Your task to perform on an android device: open app "Mercado Libre" (install if not already installed) Image 0: 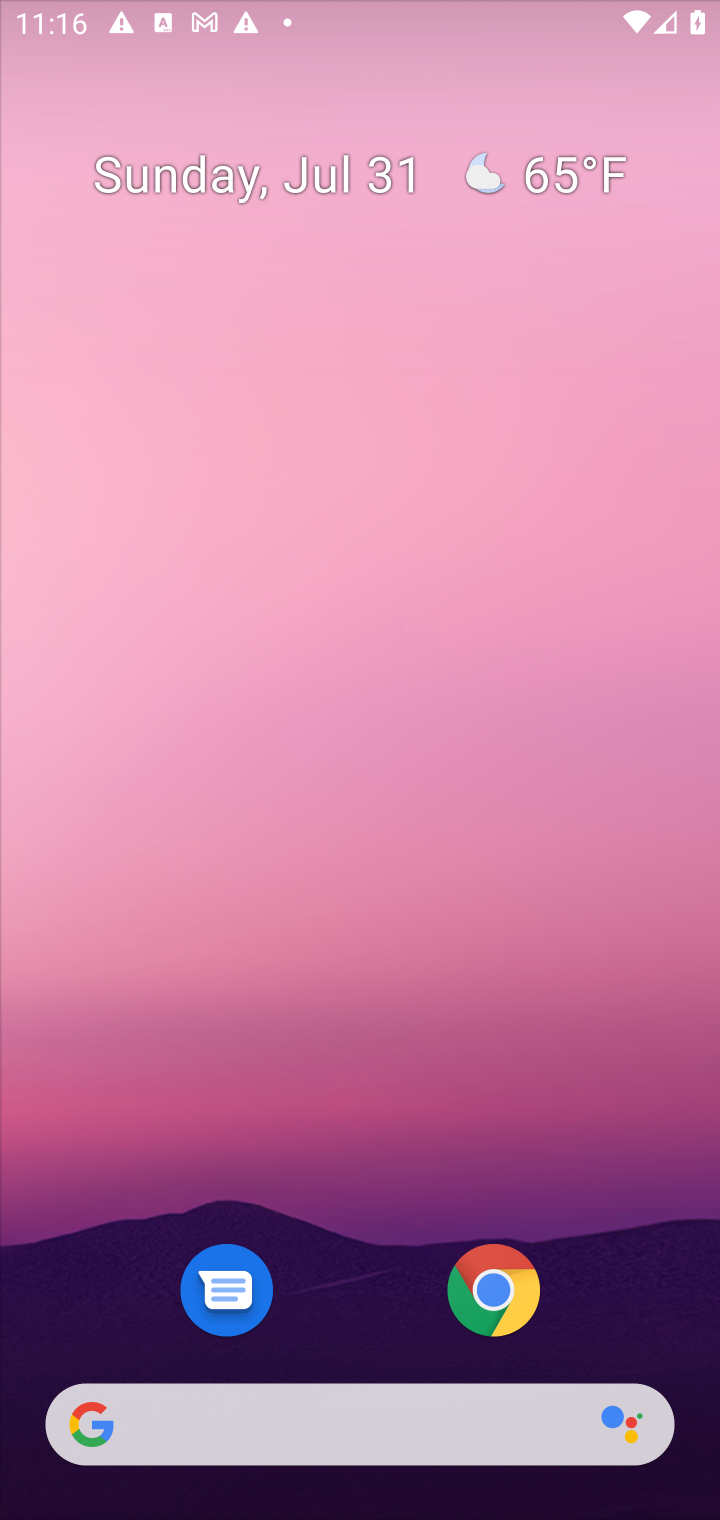
Step 0: press home button
Your task to perform on an android device: open app "Mercado Libre" (install if not already installed) Image 1: 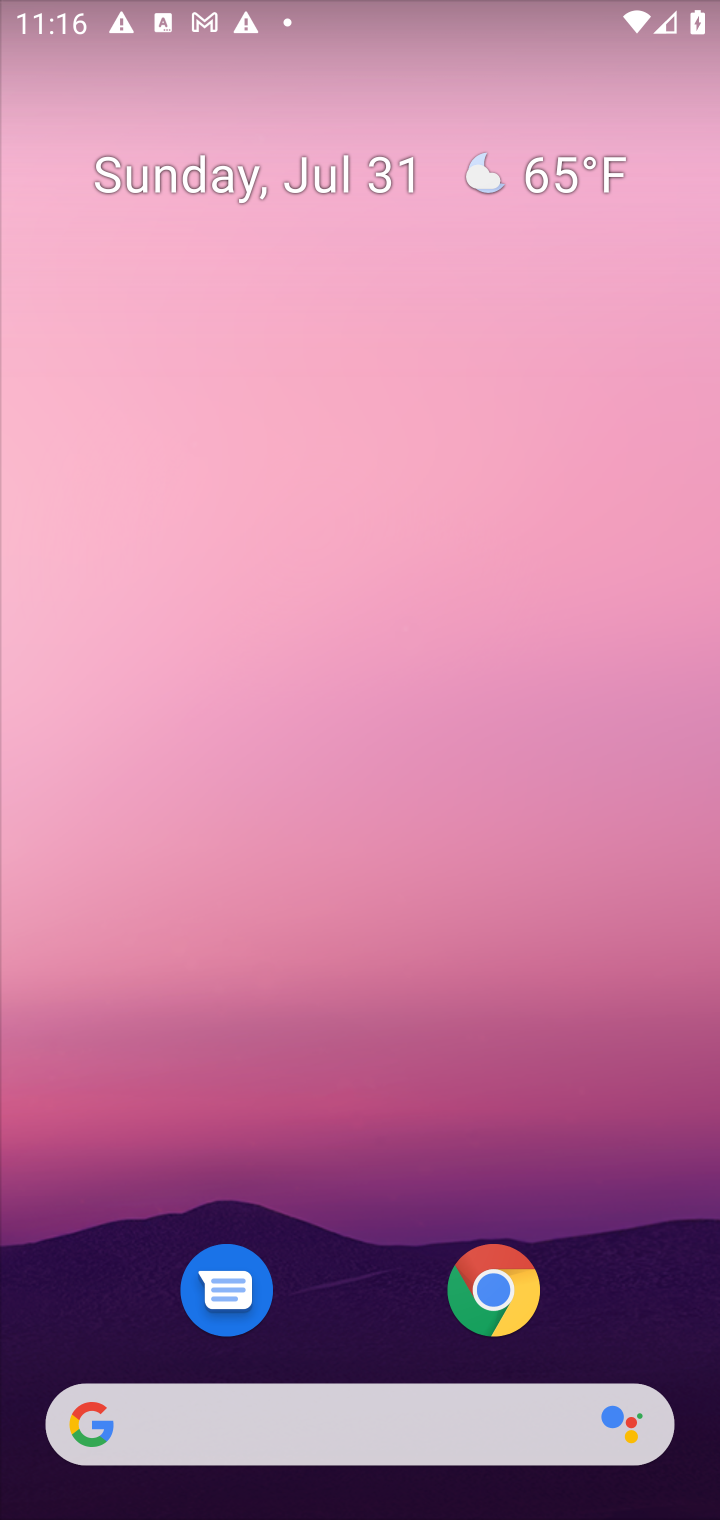
Step 1: drag from (657, 1306) to (600, 113)
Your task to perform on an android device: open app "Mercado Libre" (install if not already installed) Image 2: 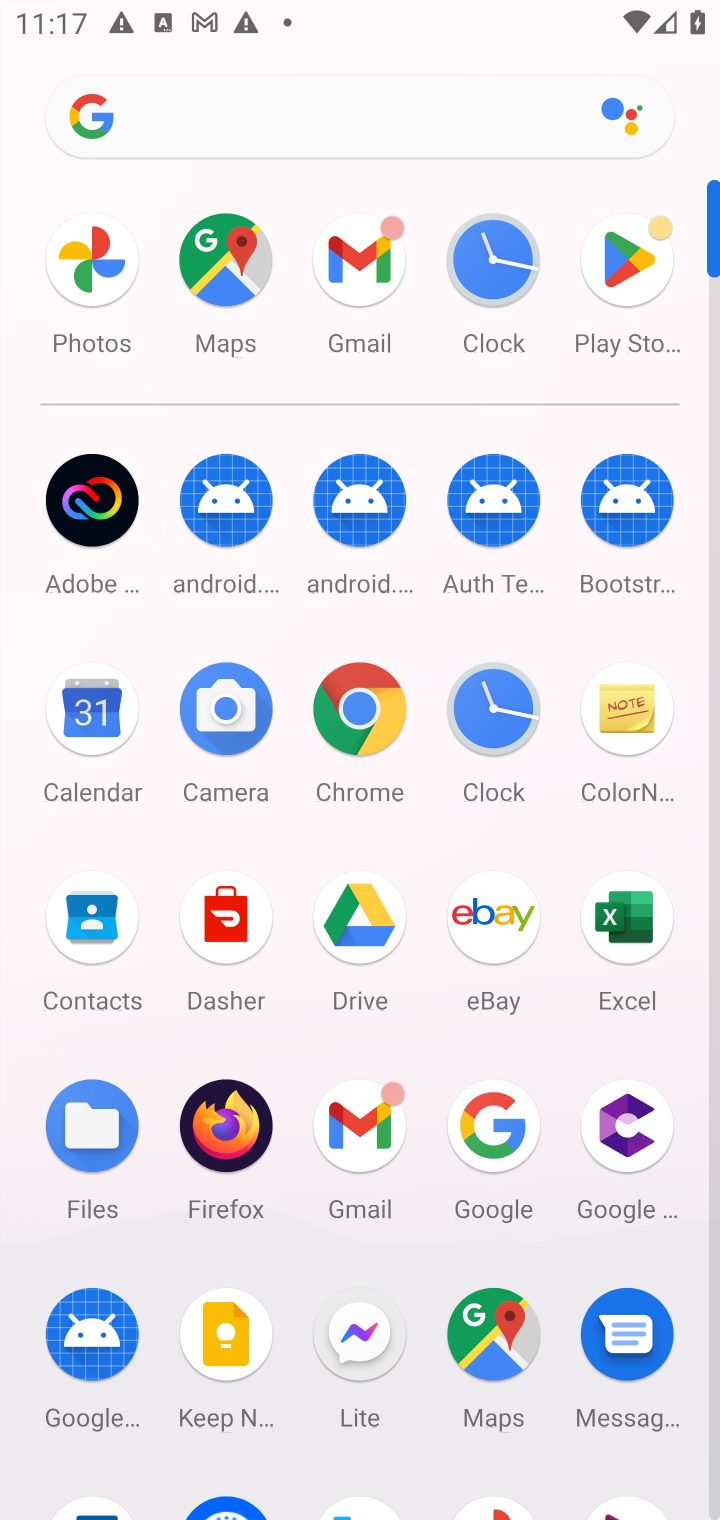
Step 2: click (635, 248)
Your task to perform on an android device: open app "Mercado Libre" (install if not already installed) Image 3: 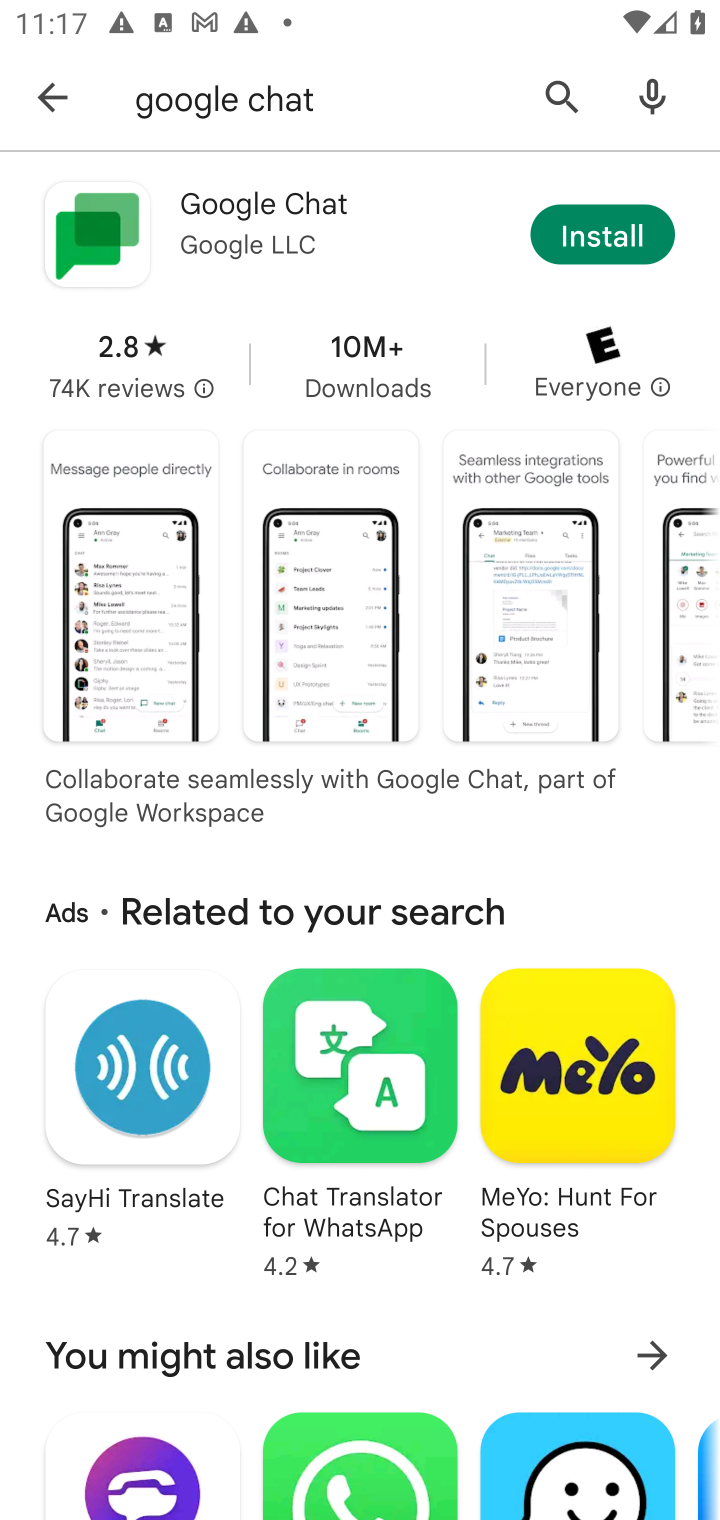
Step 3: click (561, 96)
Your task to perform on an android device: open app "Mercado Libre" (install if not already installed) Image 4: 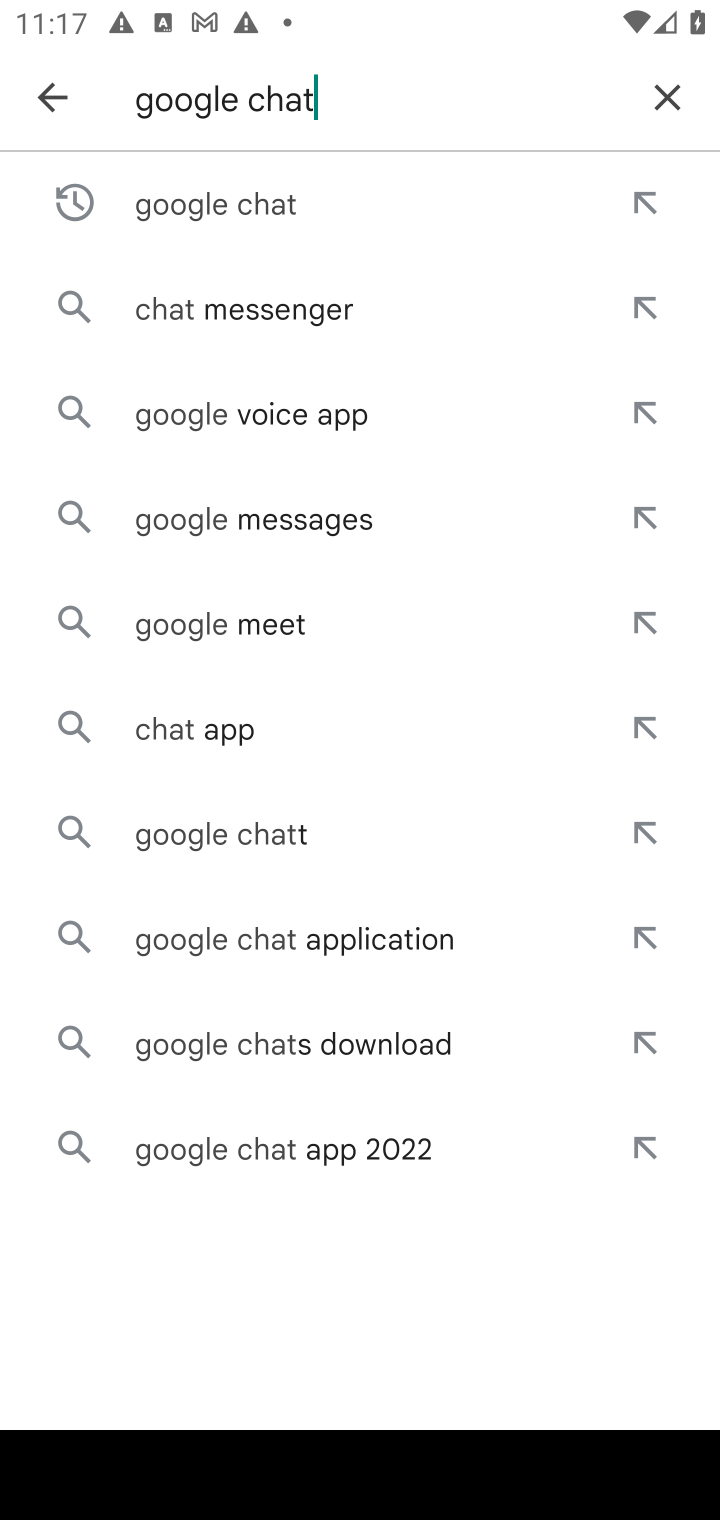
Step 4: click (659, 96)
Your task to perform on an android device: open app "Mercado Libre" (install if not already installed) Image 5: 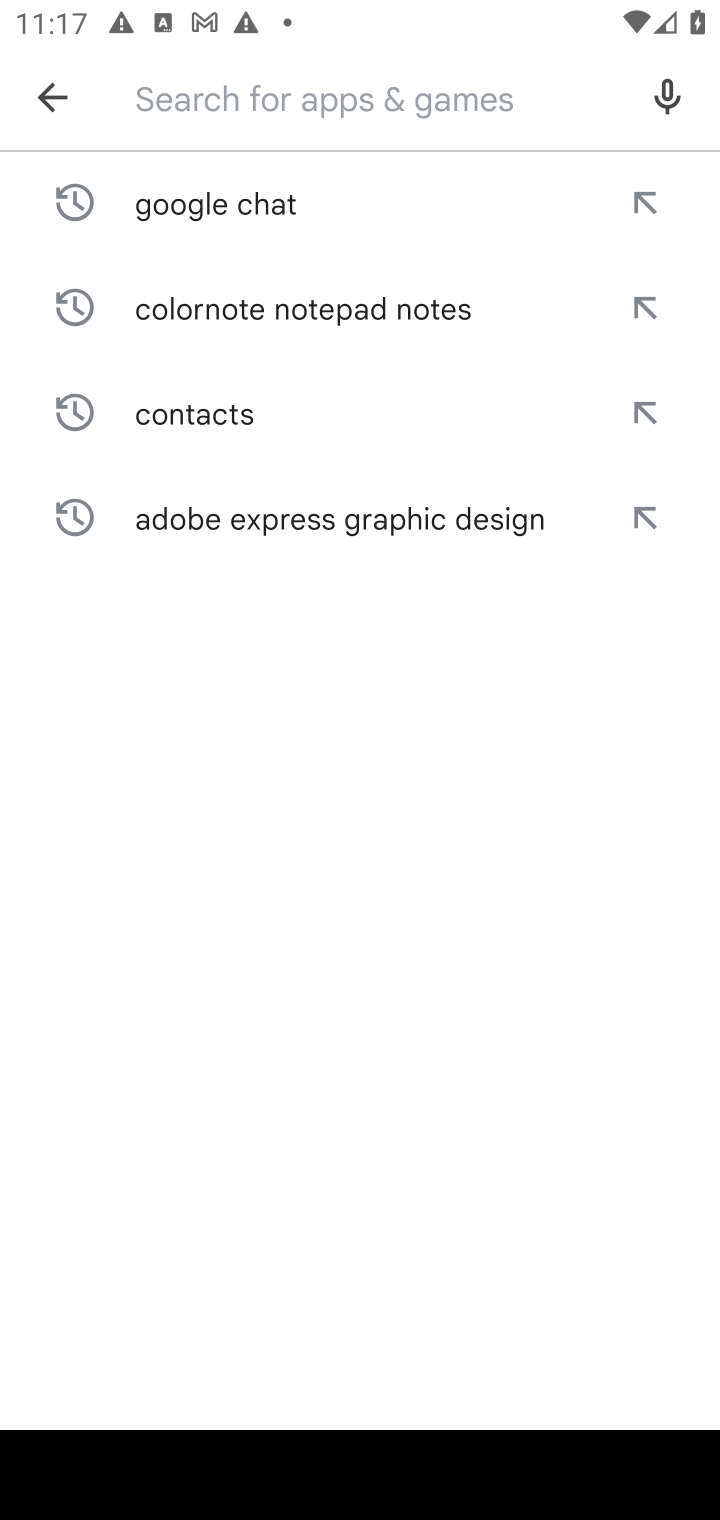
Step 5: type "mercado libre"
Your task to perform on an android device: open app "Mercado Libre" (install if not already installed) Image 6: 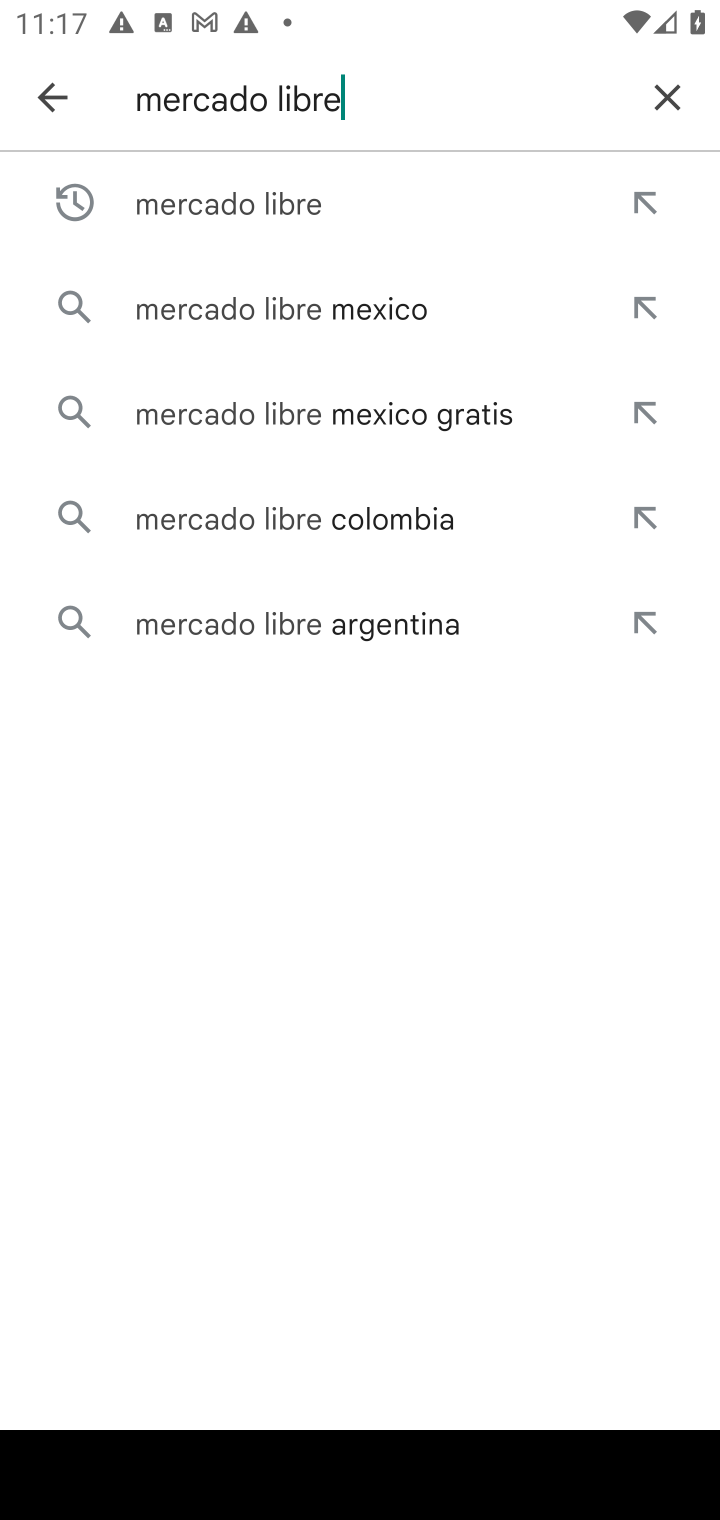
Step 6: click (358, 195)
Your task to perform on an android device: open app "Mercado Libre" (install if not already installed) Image 7: 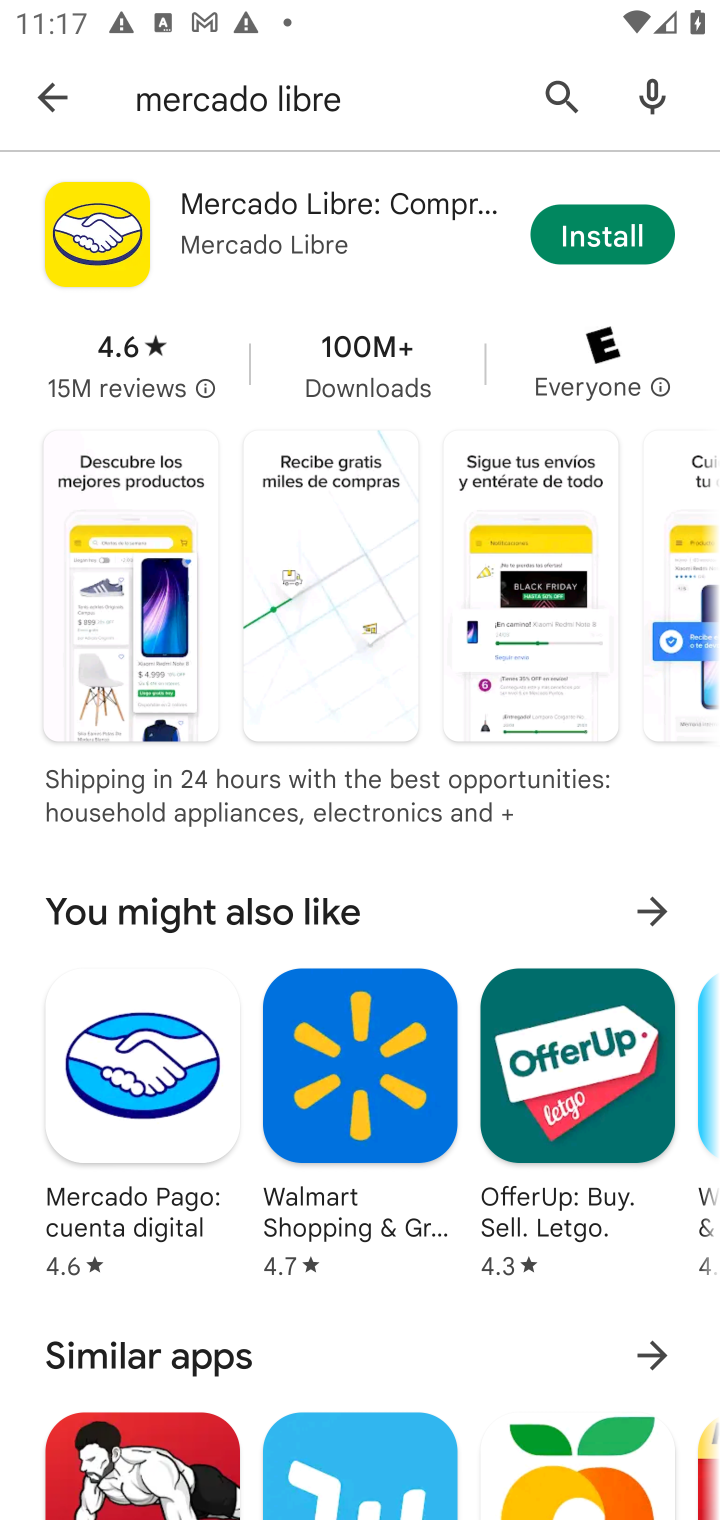
Step 7: click (610, 239)
Your task to perform on an android device: open app "Mercado Libre" (install if not already installed) Image 8: 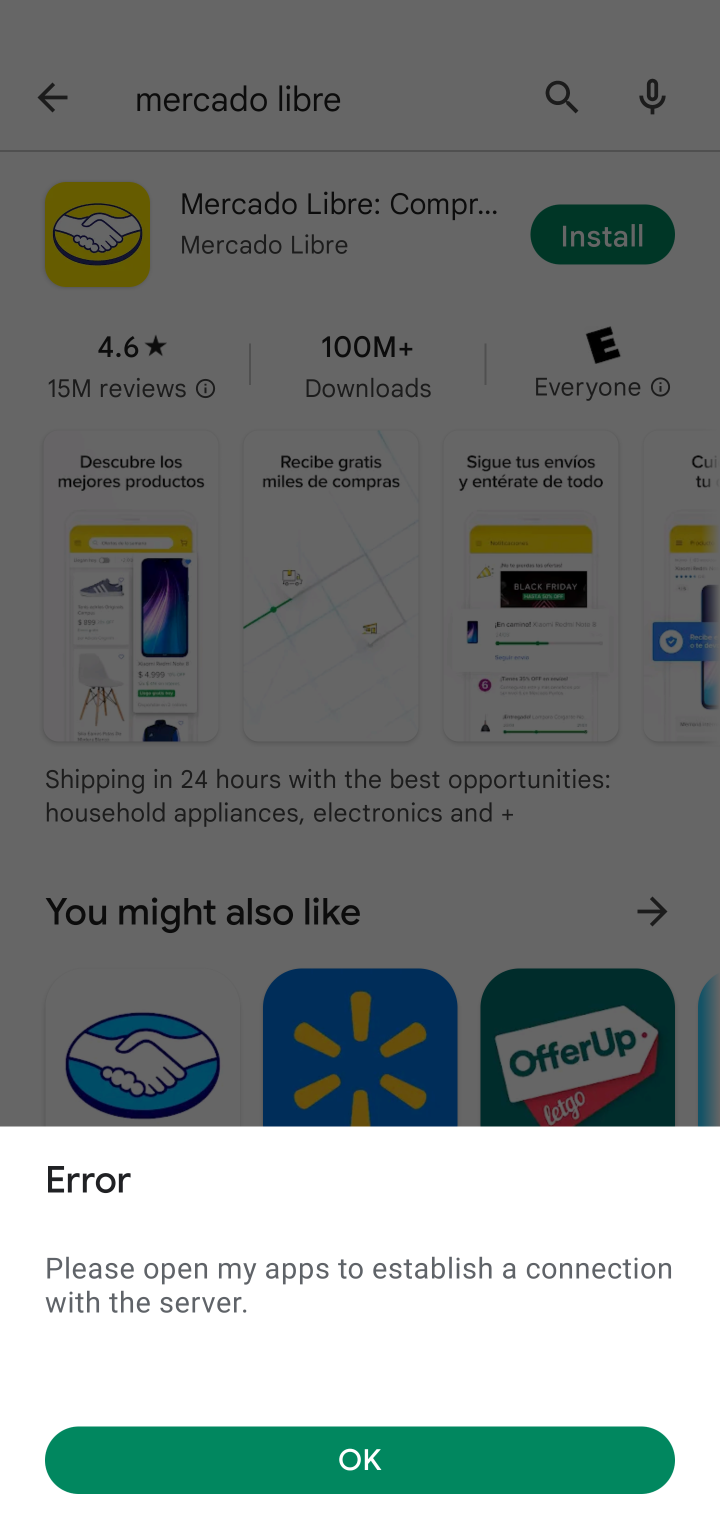
Step 8: task complete